Your task to perform on an android device: turn off picture-in-picture Image 0: 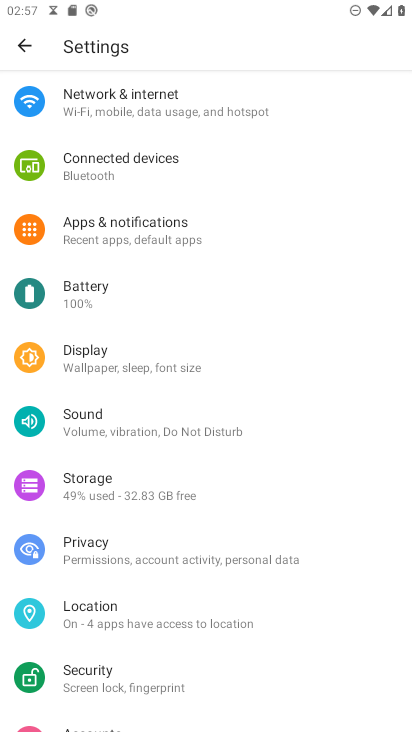
Step 0: press home button
Your task to perform on an android device: turn off picture-in-picture Image 1: 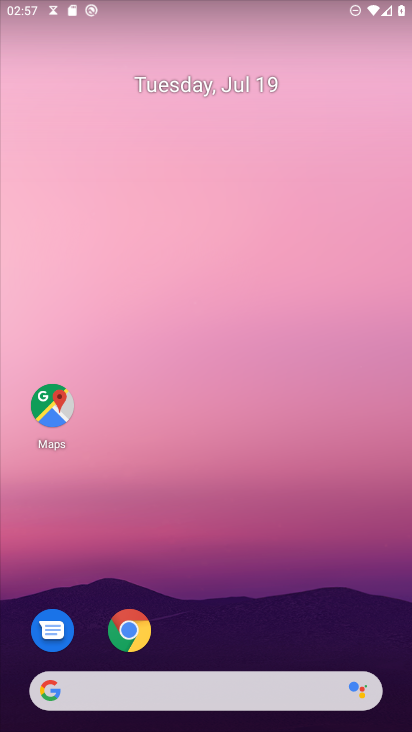
Step 1: click (132, 623)
Your task to perform on an android device: turn off picture-in-picture Image 2: 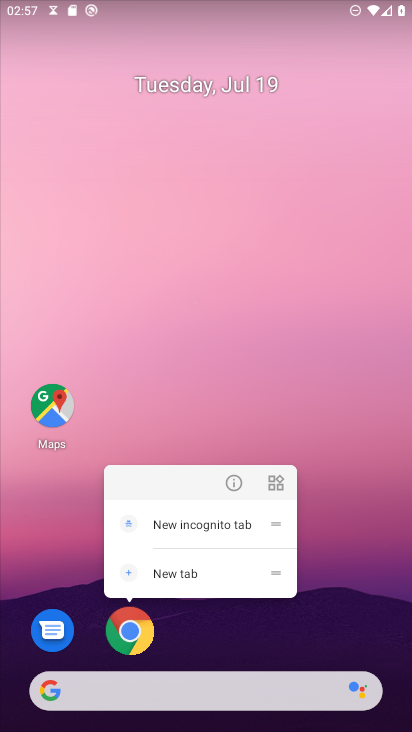
Step 2: click (233, 484)
Your task to perform on an android device: turn off picture-in-picture Image 3: 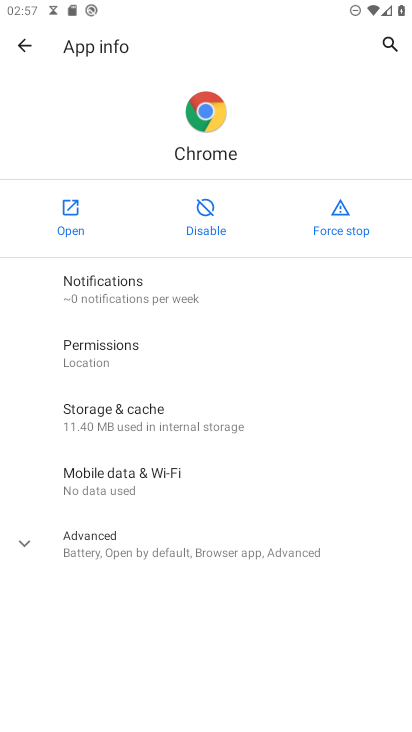
Step 3: click (106, 544)
Your task to perform on an android device: turn off picture-in-picture Image 4: 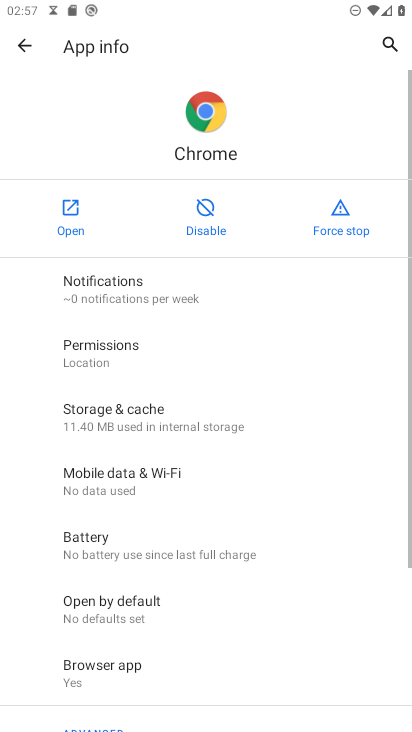
Step 4: drag from (183, 643) to (345, 146)
Your task to perform on an android device: turn off picture-in-picture Image 5: 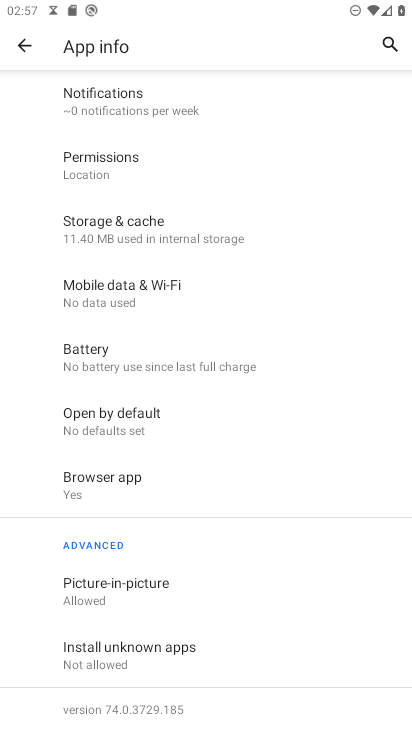
Step 5: click (141, 592)
Your task to perform on an android device: turn off picture-in-picture Image 6: 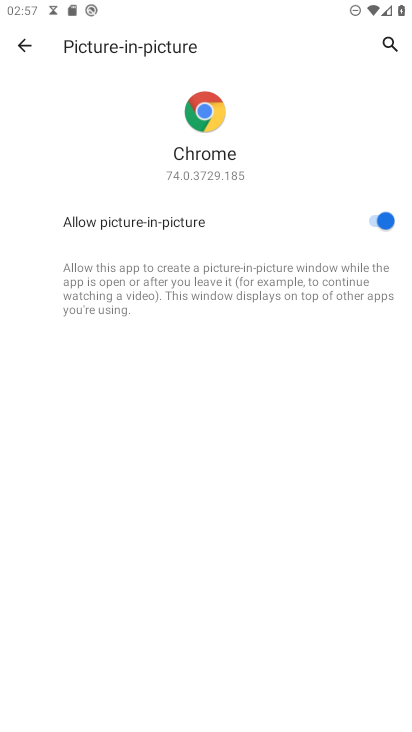
Step 6: click (375, 216)
Your task to perform on an android device: turn off picture-in-picture Image 7: 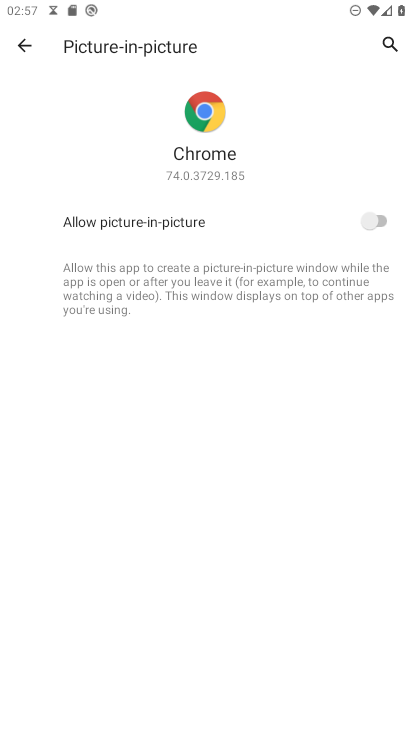
Step 7: task complete